Your task to perform on an android device: delete a single message in the gmail app Image 0: 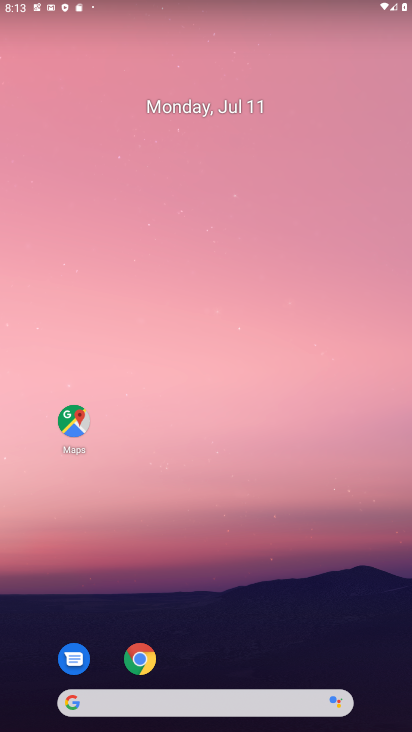
Step 0: drag from (266, 701) to (212, 154)
Your task to perform on an android device: delete a single message in the gmail app Image 1: 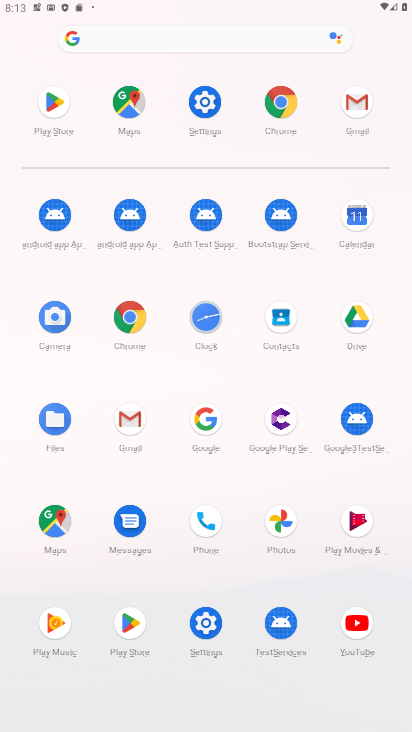
Step 1: click (125, 421)
Your task to perform on an android device: delete a single message in the gmail app Image 2: 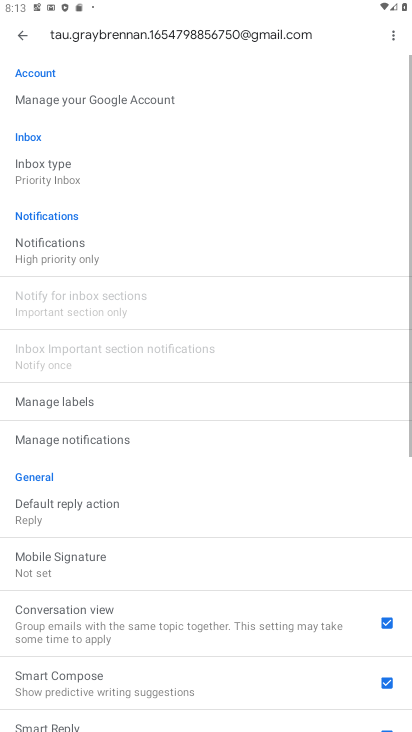
Step 2: click (28, 44)
Your task to perform on an android device: delete a single message in the gmail app Image 3: 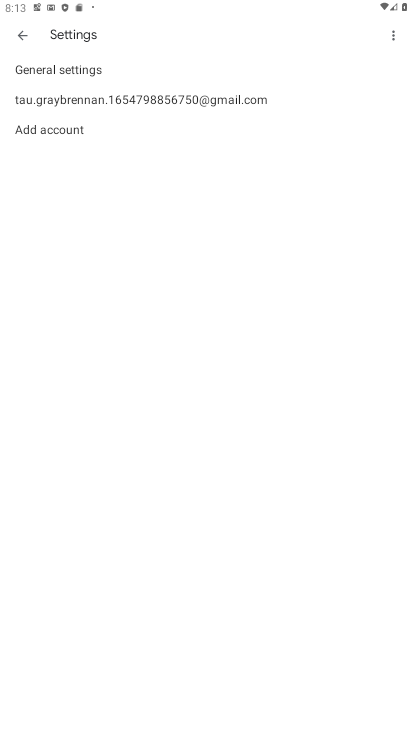
Step 3: click (78, 94)
Your task to perform on an android device: delete a single message in the gmail app Image 4: 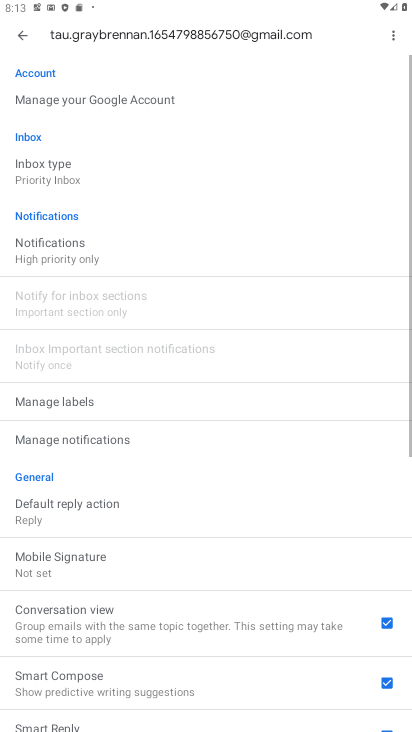
Step 4: click (21, 38)
Your task to perform on an android device: delete a single message in the gmail app Image 5: 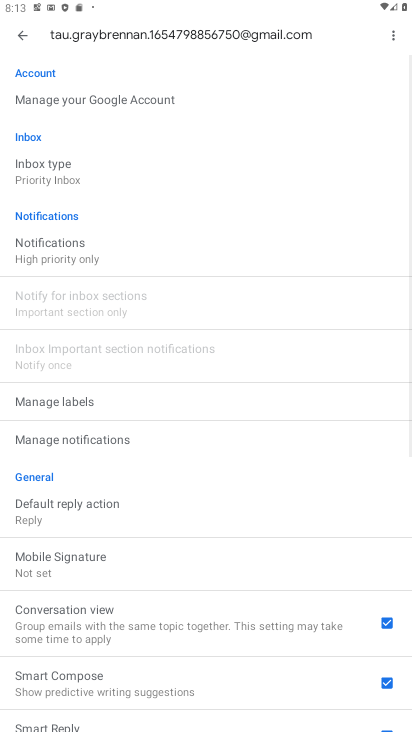
Step 5: click (25, 44)
Your task to perform on an android device: delete a single message in the gmail app Image 6: 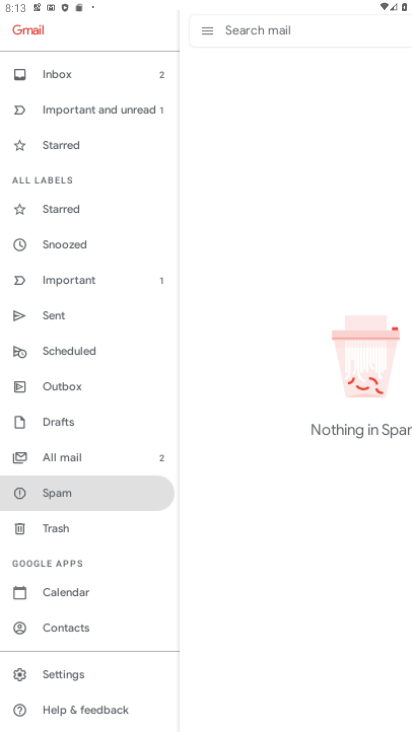
Step 6: click (25, 43)
Your task to perform on an android device: delete a single message in the gmail app Image 7: 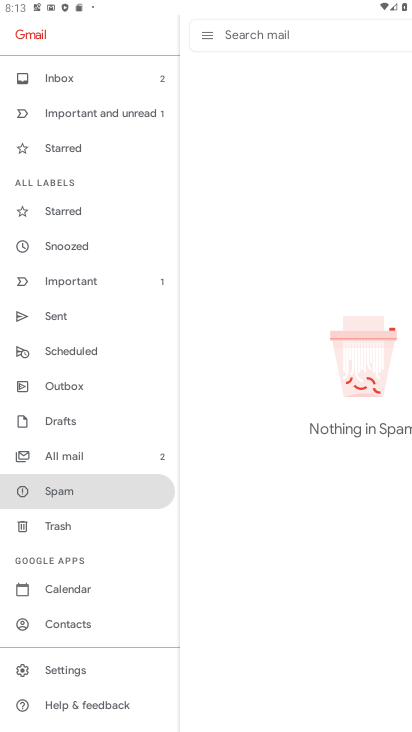
Step 7: click (48, 449)
Your task to perform on an android device: delete a single message in the gmail app Image 8: 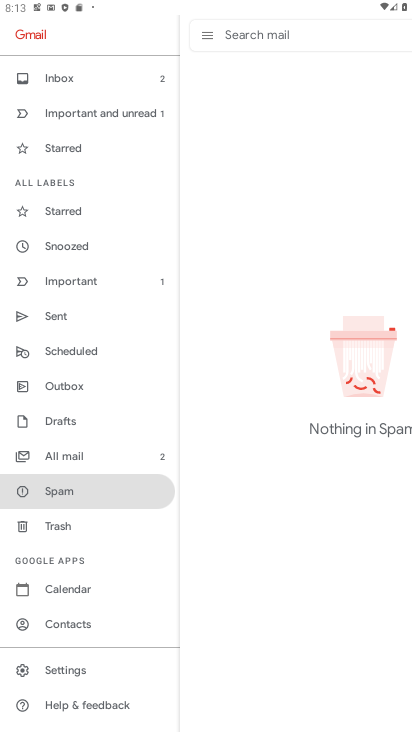
Step 8: click (48, 449)
Your task to perform on an android device: delete a single message in the gmail app Image 9: 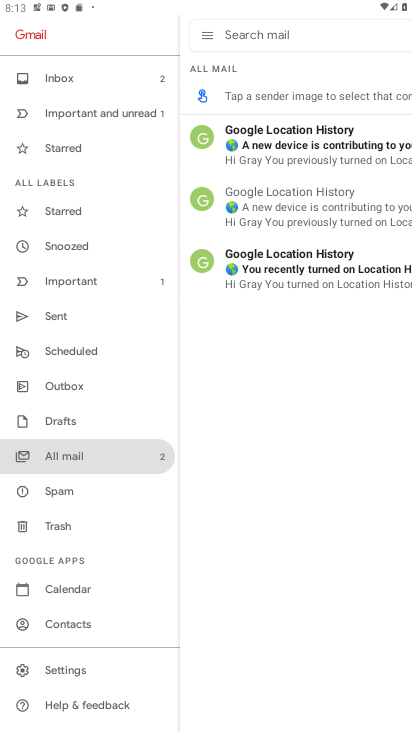
Step 9: click (299, 145)
Your task to perform on an android device: delete a single message in the gmail app Image 10: 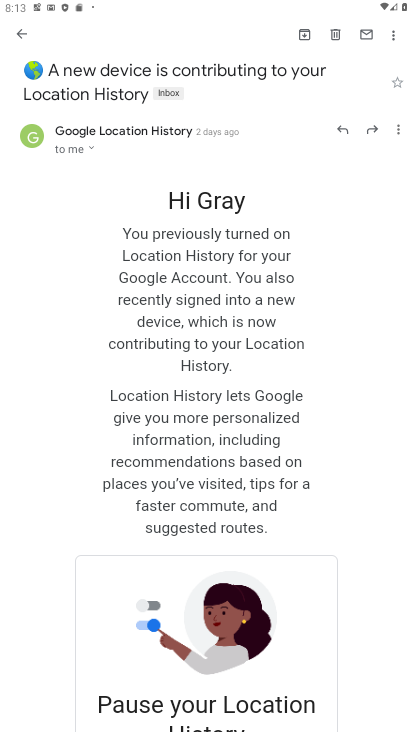
Step 10: click (396, 128)
Your task to perform on an android device: delete a single message in the gmail app Image 11: 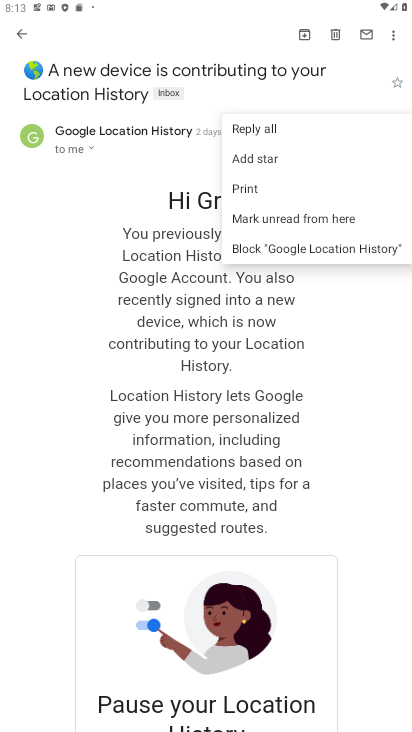
Step 11: click (331, 312)
Your task to perform on an android device: delete a single message in the gmail app Image 12: 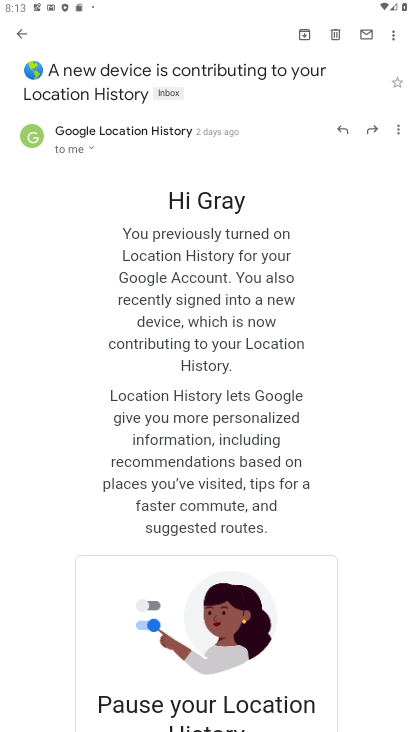
Step 12: click (391, 27)
Your task to perform on an android device: delete a single message in the gmail app Image 13: 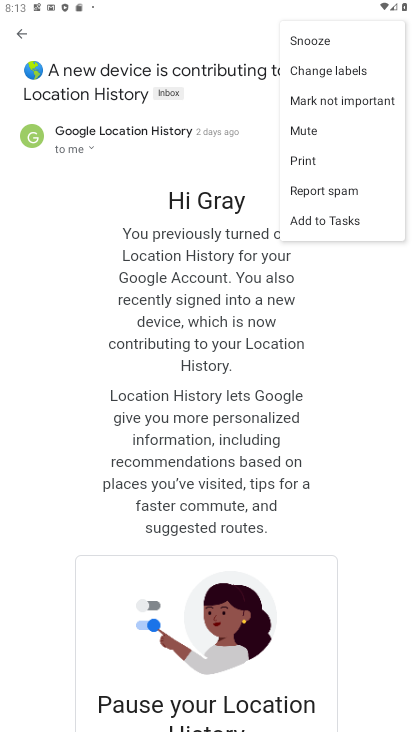
Step 13: click (319, 330)
Your task to perform on an android device: delete a single message in the gmail app Image 14: 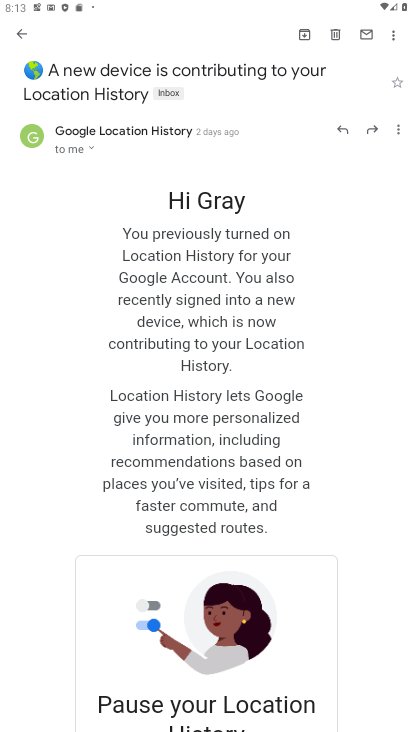
Step 14: click (336, 37)
Your task to perform on an android device: delete a single message in the gmail app Image 15: 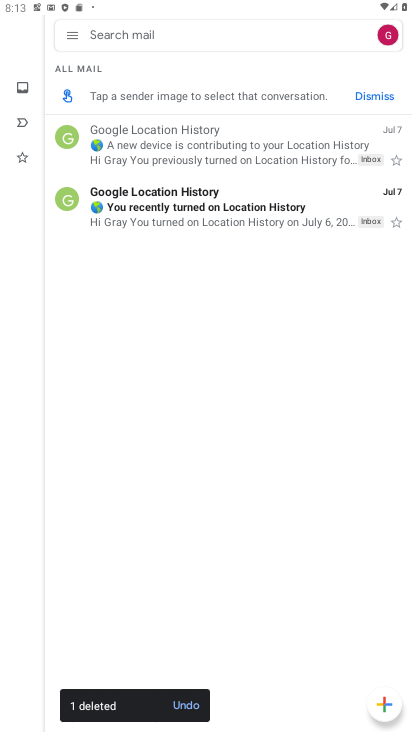
Step 15: task complete